Your task to perform on an android device: Open privacy settings Image 0: 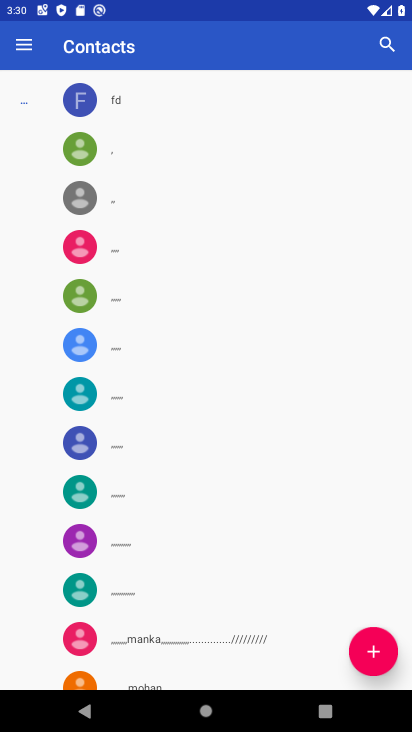
Step 0: press home button
Your task to perform on an android device: Open privacy settings Image 1: 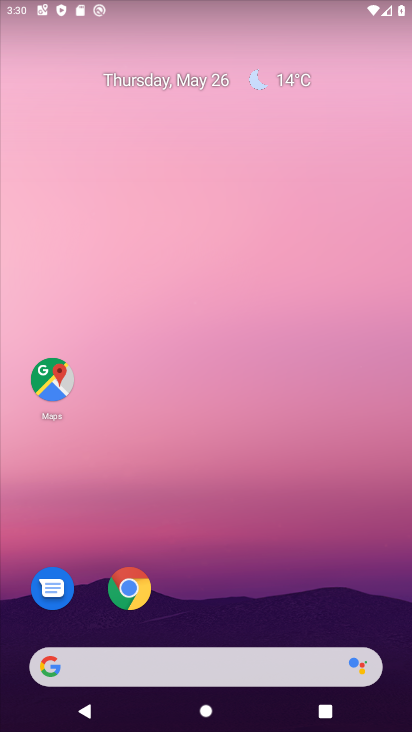
Step 1: drag from (260, 528) to (294, 241)
Your task to perform on an android device: Open privacy settings Image 2: 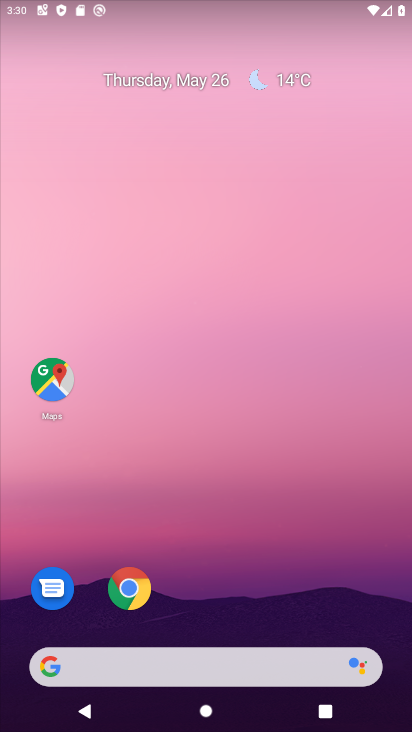
Step 2: drag from (233, 591) to (269, 32)
Your task to perform on an android device: Open privacy settings Image 3: 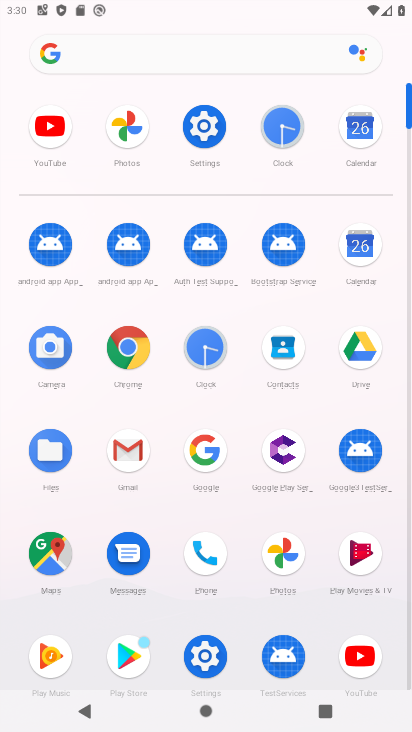
Step 3: click (201, 135)
Your task to perform on an android device: Open privacy settings Image 4: 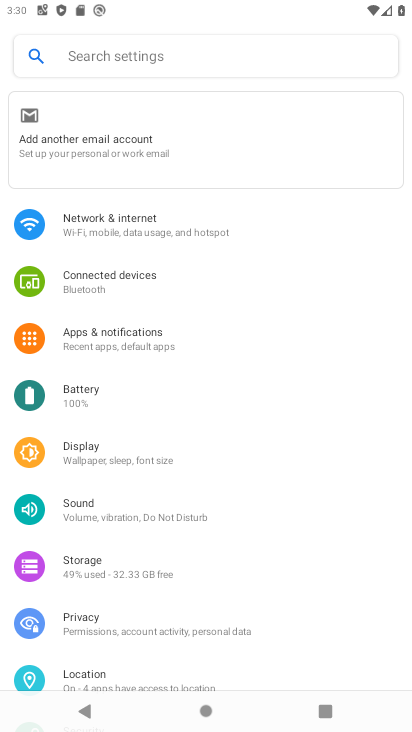
Step 4: click (136, 638)
Your task to perform on an android device: Open privacy settings Image 5: 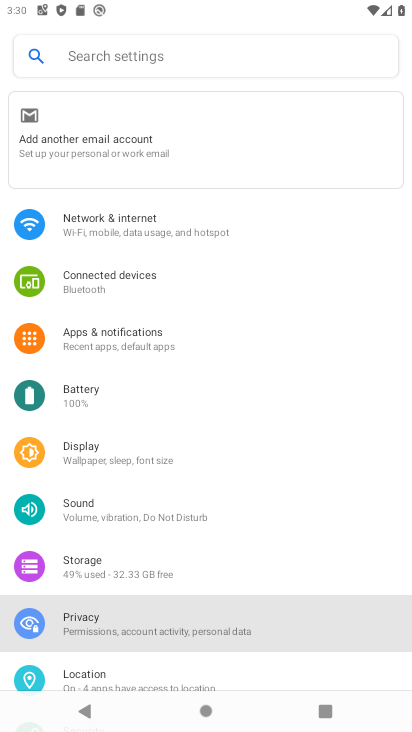
Step 5: task complete